Your task to perform on an android device: check the backup settings in the google photos Image 0: 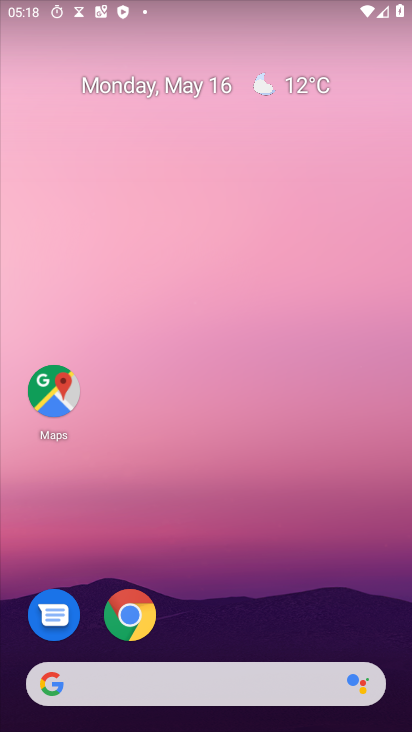
Step 0: drag from (243, 685) to (149, 216)
Your task to perform on an android device: check the backup settings in the google photos Image 1: 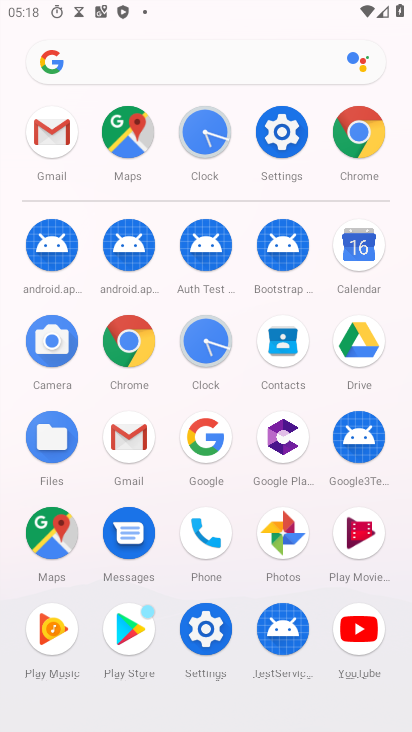
Step 1: click (277, 542)
Your task to perform on an android device: check the backup settings in the google photos Image 2: 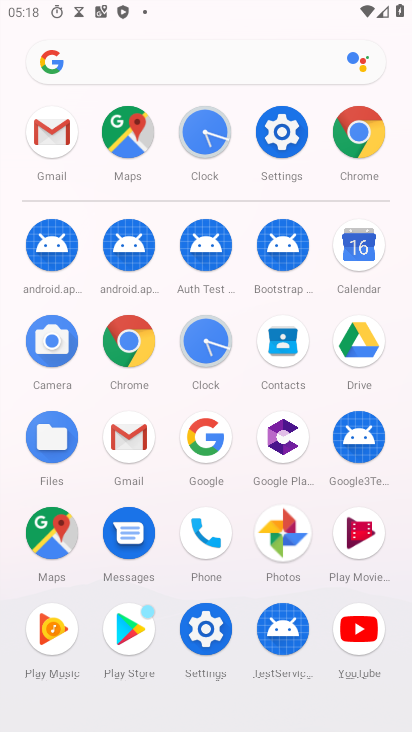
Step 2: click (277, 542)
Your task to perform on an android device: check the backup settings in the google photos Image 3: 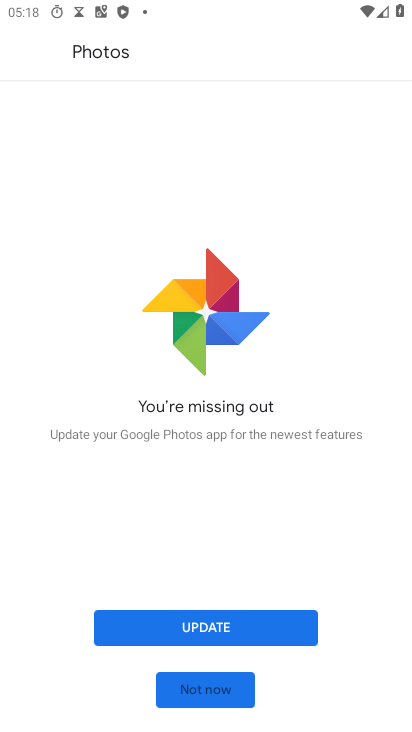
Step 3: click (217, 684)
Your task to perform on an android device: check the backup settings in the google photos Image 4: 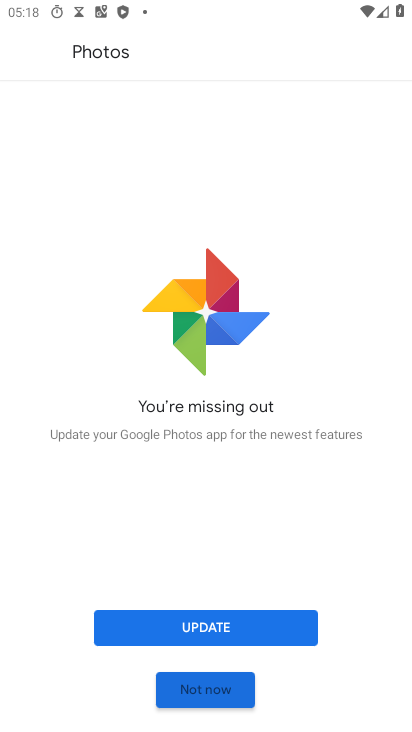
Step 4: click (217, 684)
Your task to perform on an android device: check the backup settings in the google photos Image 5: 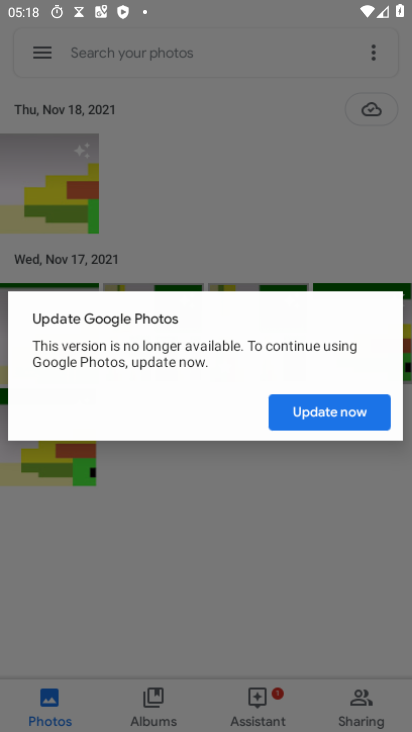
Step 5: click (217, 684)
Your task to perform on an android device: check the backup settings in the google photos Image 6: 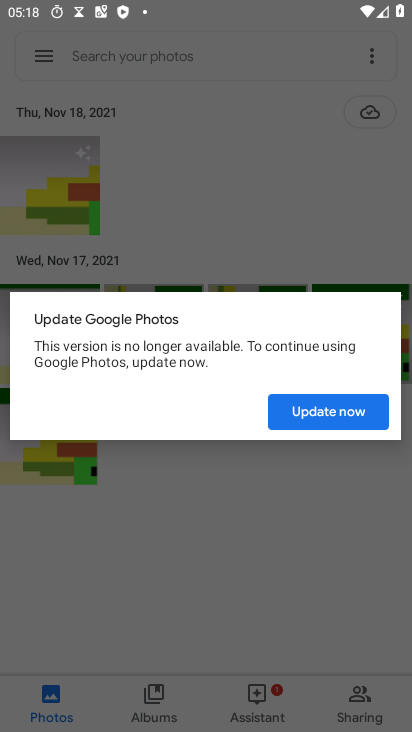
Step 6: click (217, 684)
Your task to perform on an android device: check the backup settings in the google photos Image 7: 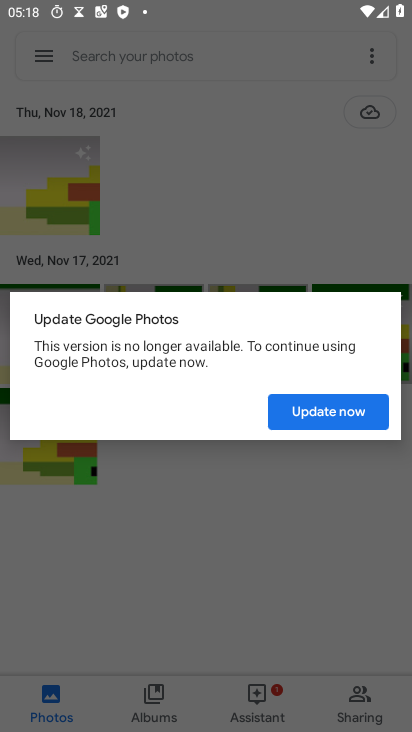
Step 7: click (217, 684)
Your task to perform on an android device: check the backup settings in the google photos Image 8: 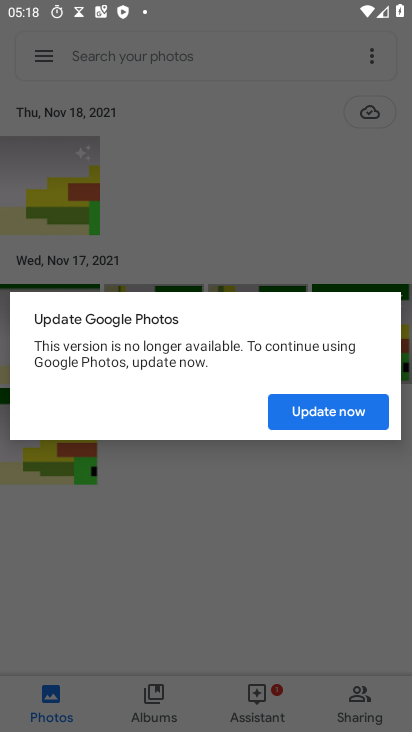
Step 8: click (309, 404)
Your task to perform on an android device: check the backup settings in the google photos Image 9: 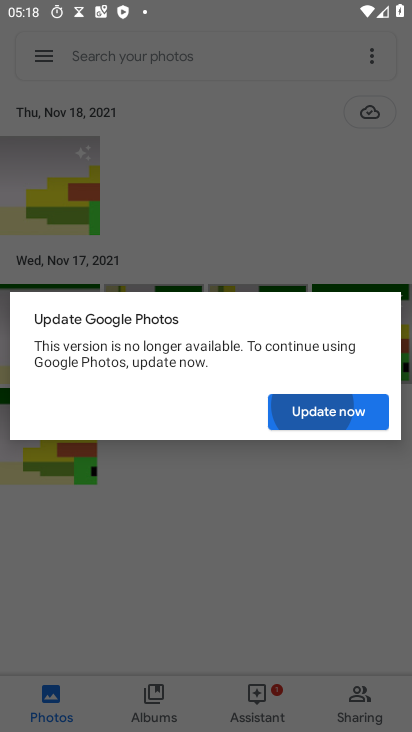
Step 9: click (309, 404)
Your task to perform on an android device: check the backup settings in the google photos Image 10: 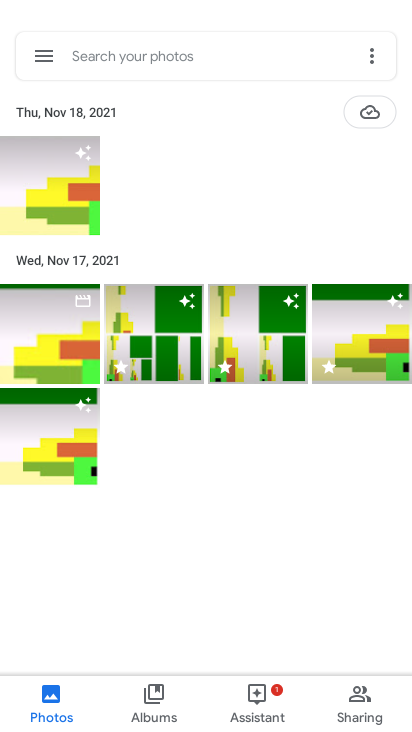
Step 10: click (309, 405)
Your task to perform on an android device: check the backup settings in the google photos Image 11: 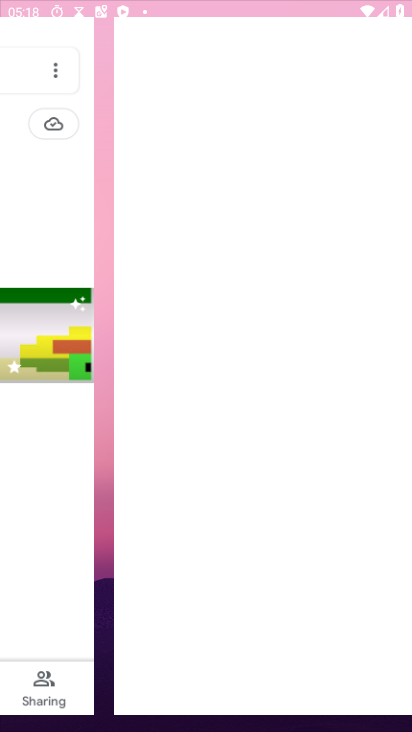
Step 11: click (309, 406)
Your task to perform on an android device: check the backup settings in the google photos Image 12: 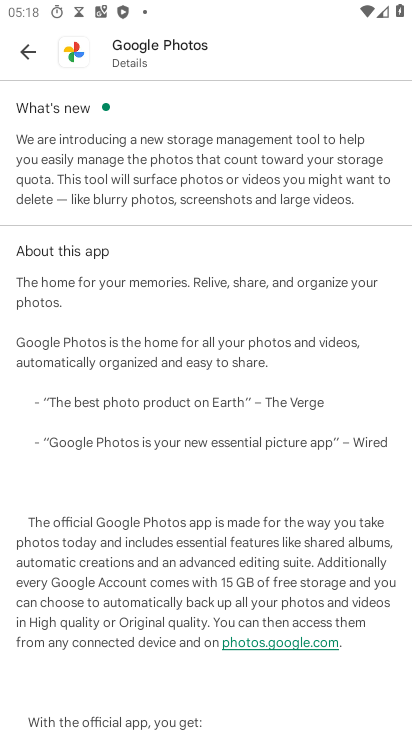
Step 12: click (35, 42)
Your task to perform on an android device: check the backup settings in the google photos Image 13: 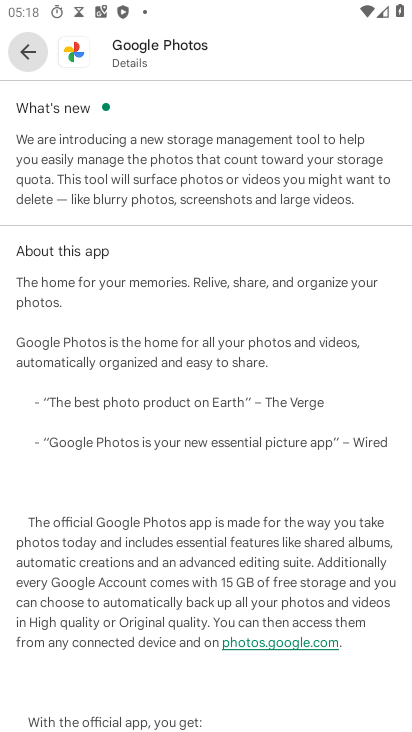
Step 13: click (33, 52)
Your task to perform on an android device: check the backup settings in the google photos Image 14: 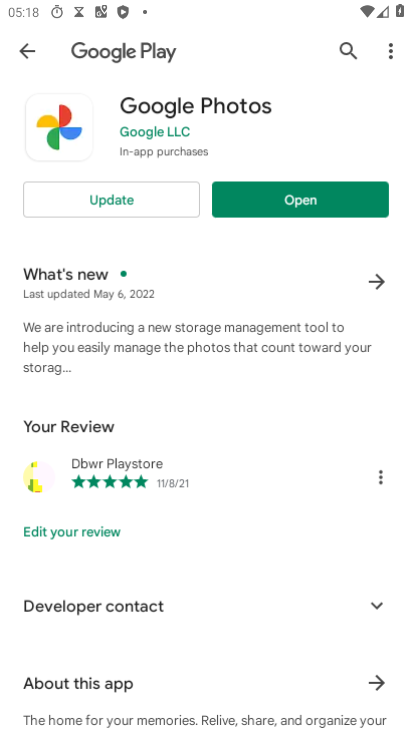
Step 14: click (22, 50)
Your task to perform on an android device: check the backup settings in the google photos Image 15: 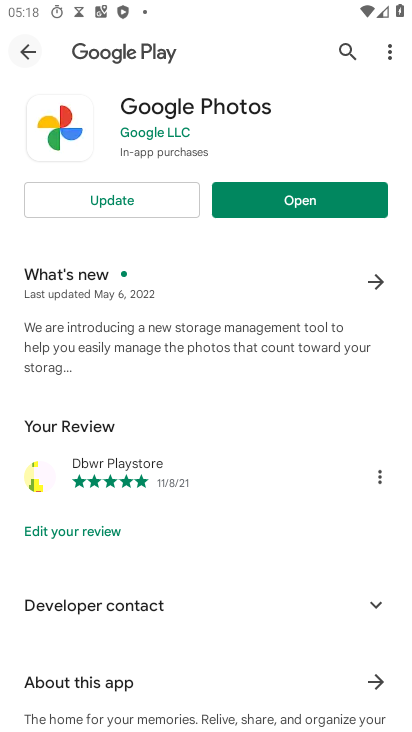
Step 15: click (22, 50)
Your task to perform on an android device: check the backup settings in the google photos Image 16: 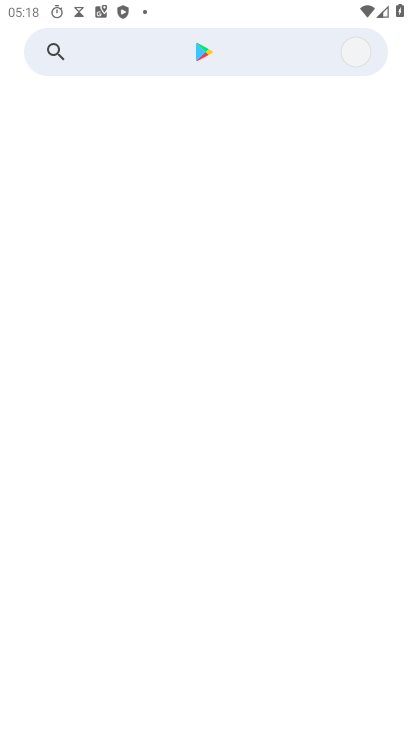
Step 16: click (22, 50)
Your task to perform on an android device: check the backup settings in the google photos Image 17: 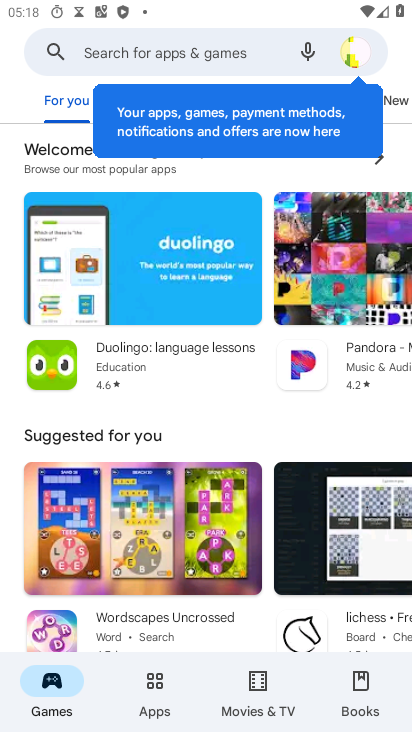
Step 17: click (83, 59)
Your task to perform on an android device: check the backup settings in the google photos Image 18: 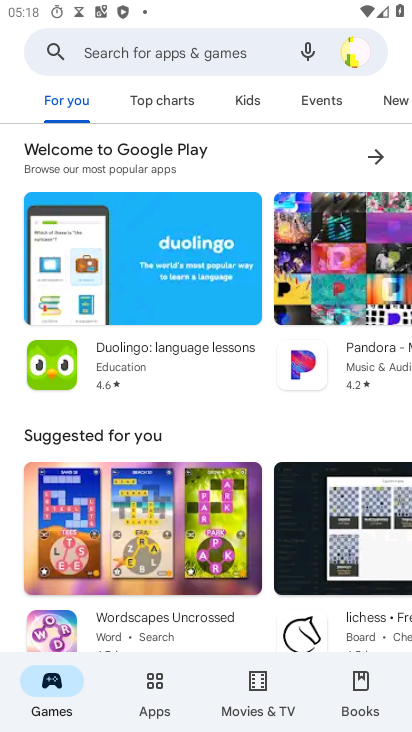
Step 18: click (83, 59)
Your task to perform on an android device: check the backup settings in the google photos Image 19: 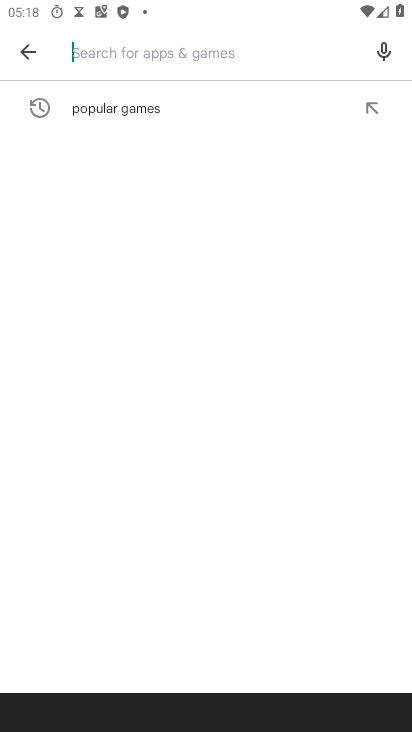
Step 19: click (85, 59)
Your task to perform on an android device: check the backup settings in the google photos Image 20: 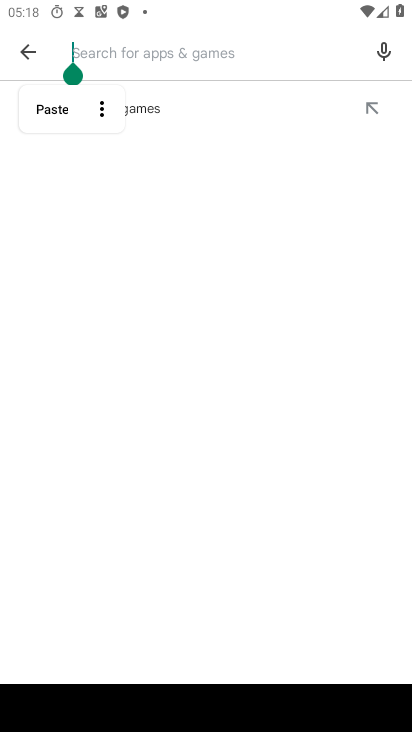
Step 20: click (363, 111)
Your task to perform on an android device: check the backup settings in the google photos Image 21: 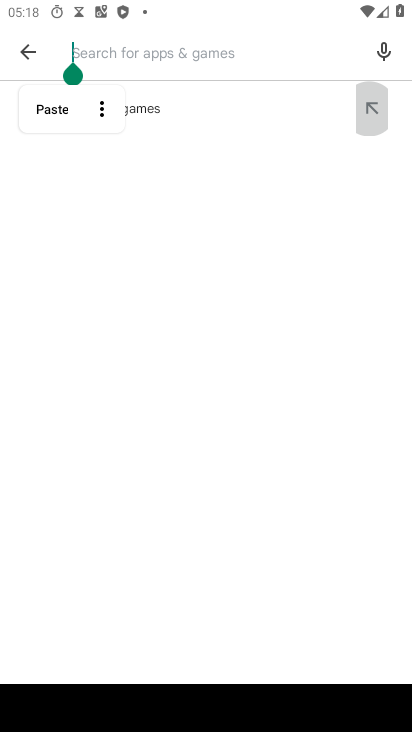
Step 21: click (366, 111)
Your task to perform on an android device: check the backup settings in the google photos Image 22: 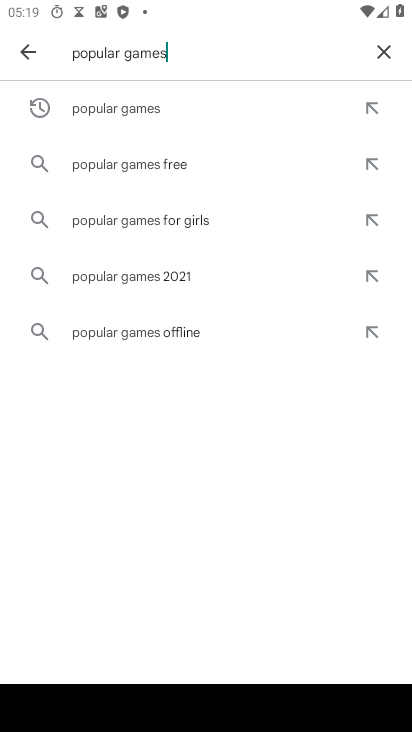
Step 22: task complete